Your task to perform on an android device: Open sound settings Image 0: 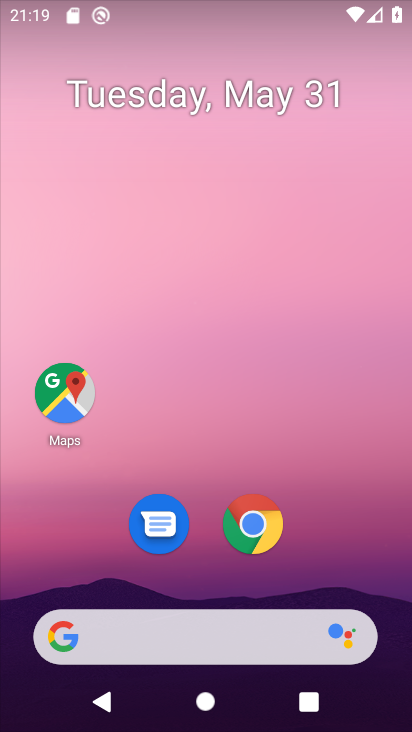
Step 0: drag from (313, 550) to (312, 12)
Your task to perform on an android device: Open sound settings Image 1: 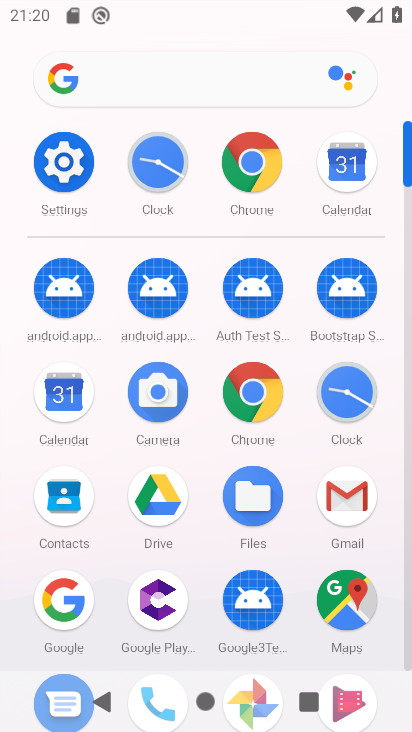
Step 1: click (61, 162)
Your task to perform on an android device: Open sound settings Image 2: 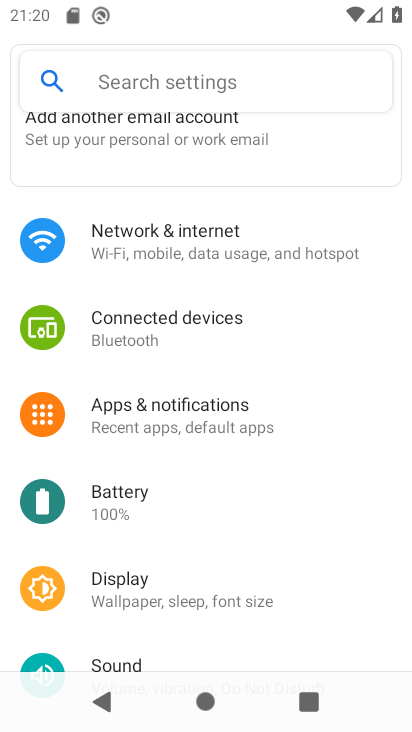
Step 2: drag from (202, 514) to (206, 304)
Your task to perform on an android device: Open sound settings Image 3: 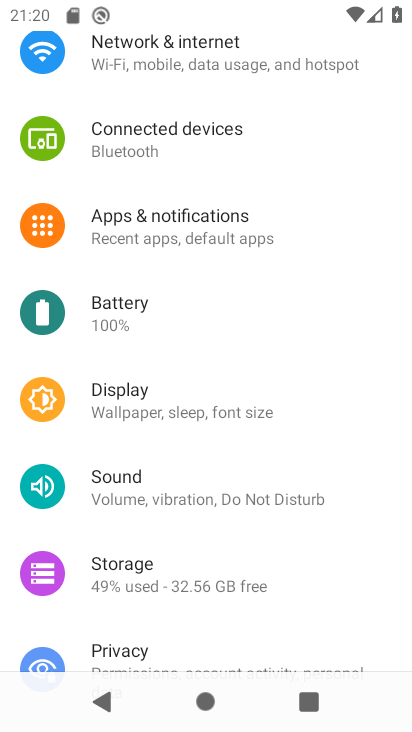
Step 3: click (185, 479)
Your task to perform on an android device: Open sound settings Image 4: 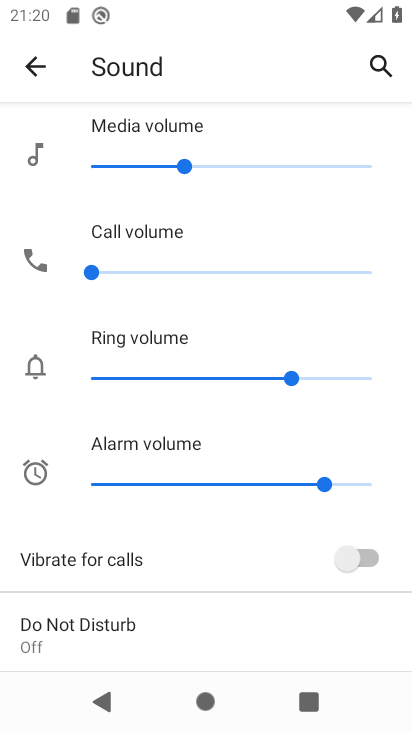
Step 4: task complete